Your task to perform on an android device: toggle javascript in the chrome app Image 0: 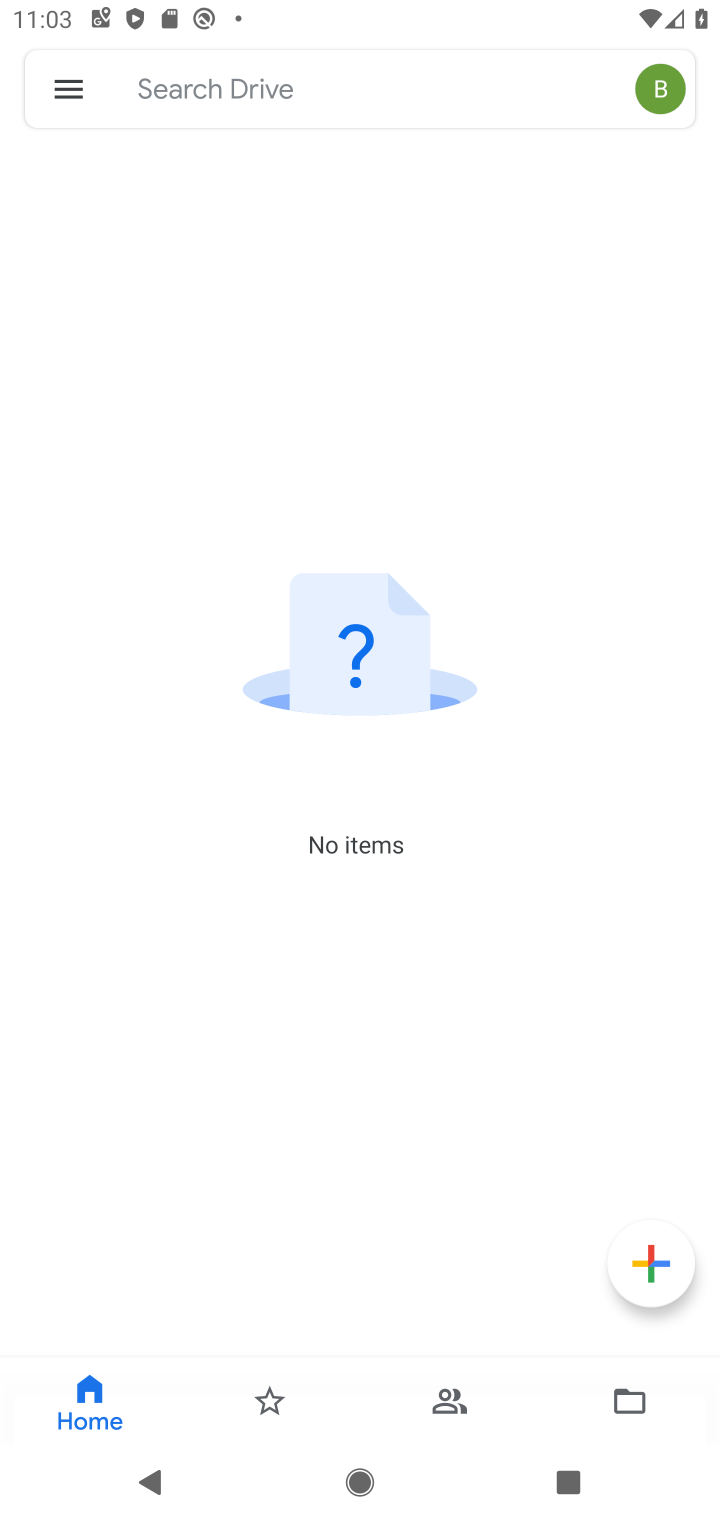
Step 0: press back button
Your task to perform on an android device: toggle javascript in the chrome app Image 1: 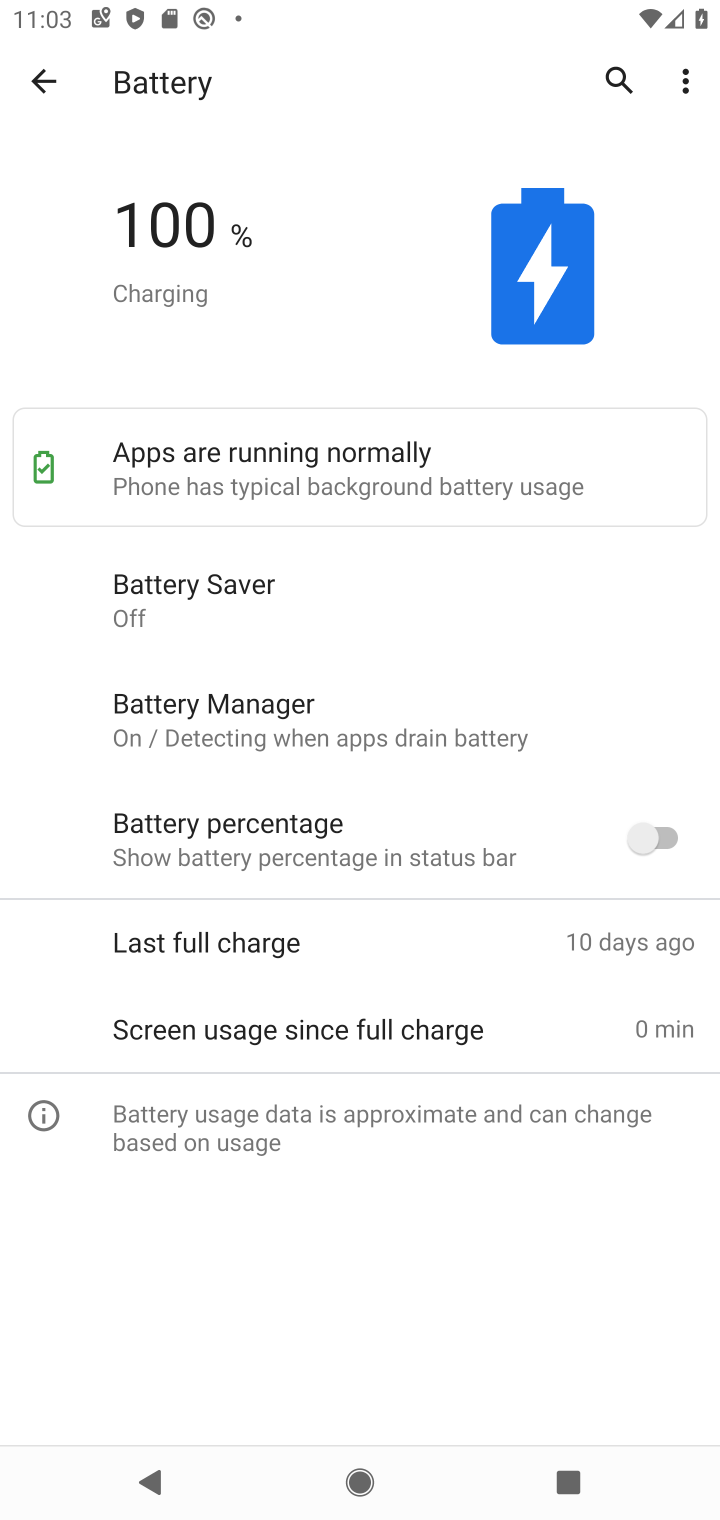
Step 1: press back button
Your task to perform on an android device: toggle javascript in the chrome app Image 2: 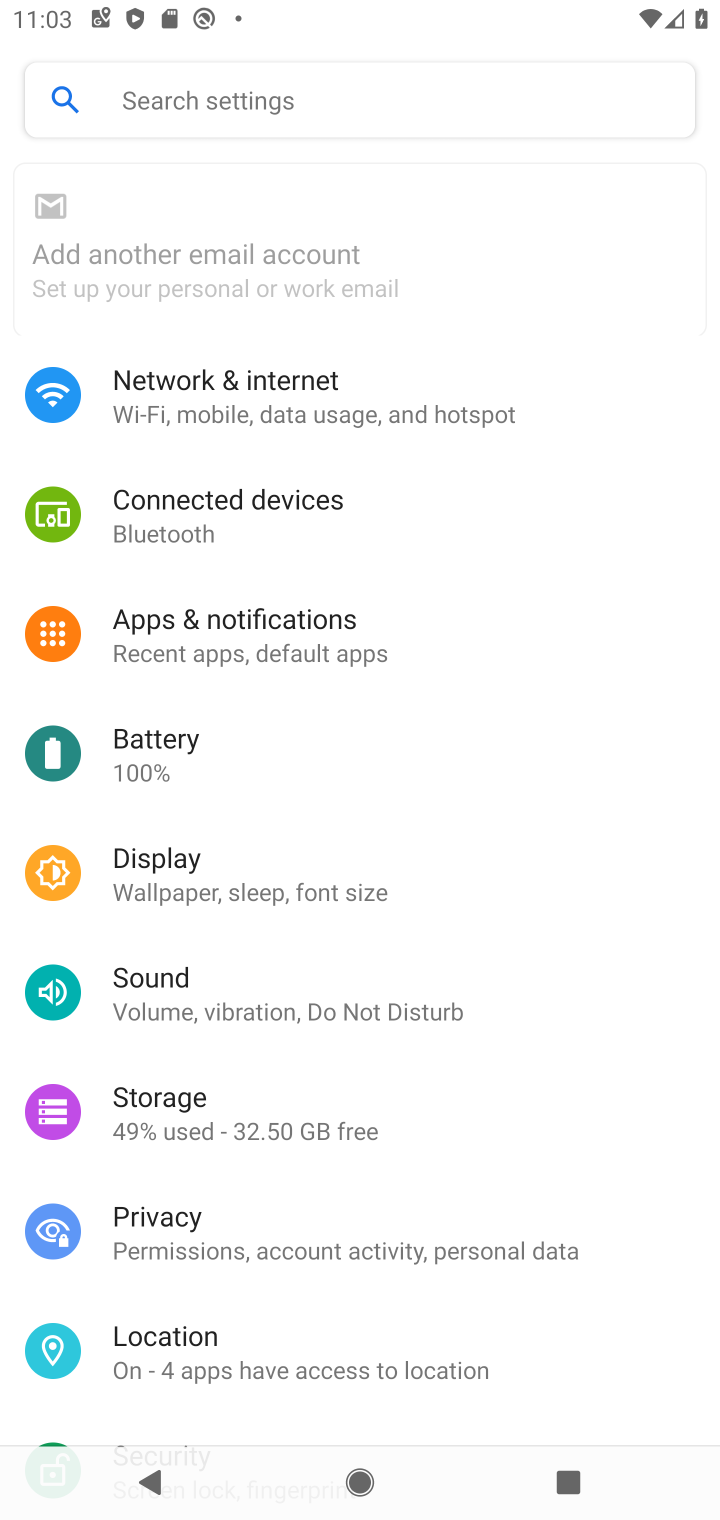
Step 2: press back button
Your task to perform on an android device: toggle javascript in the chrome app Image 3: 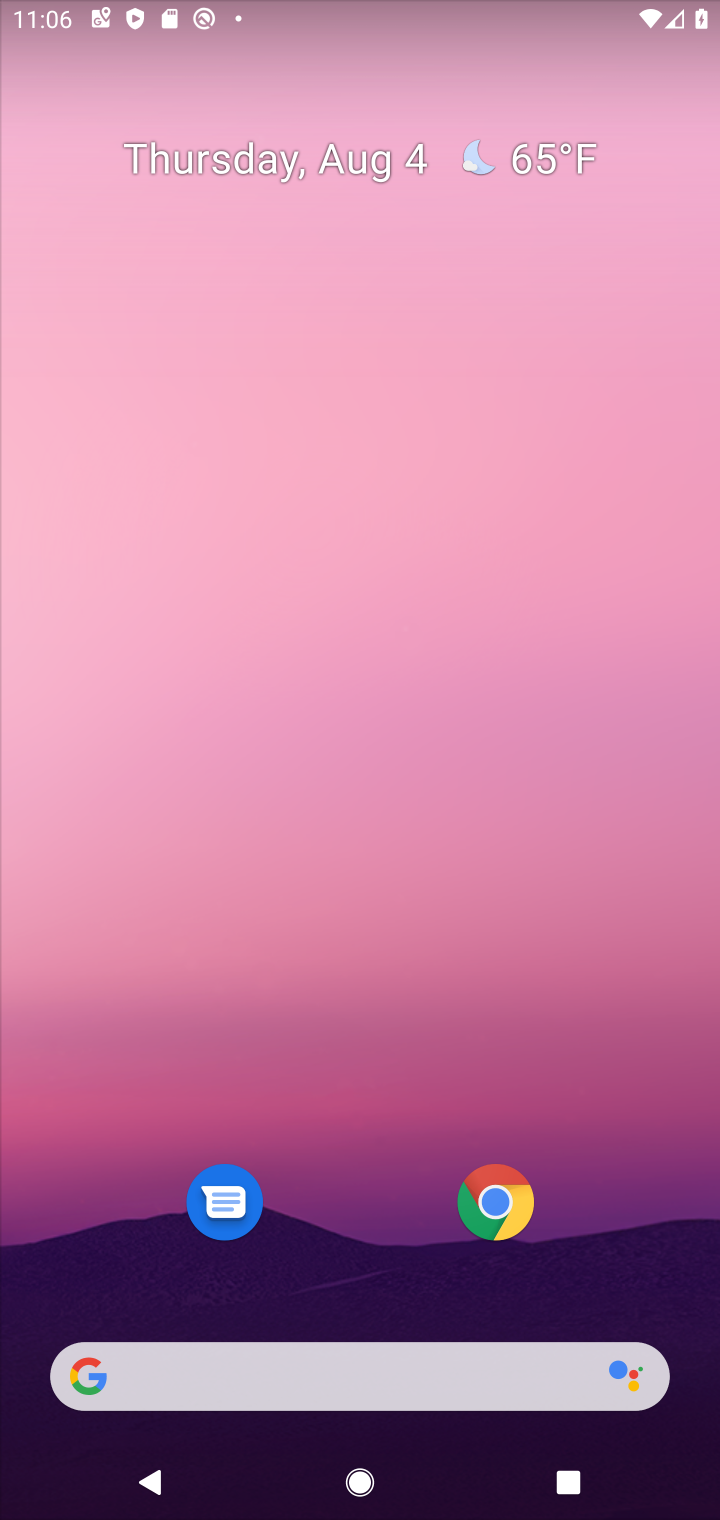
Step 3: click (524, 1208)
Your task to perform on an android device: toggle javascript in the chrome app Image 4: 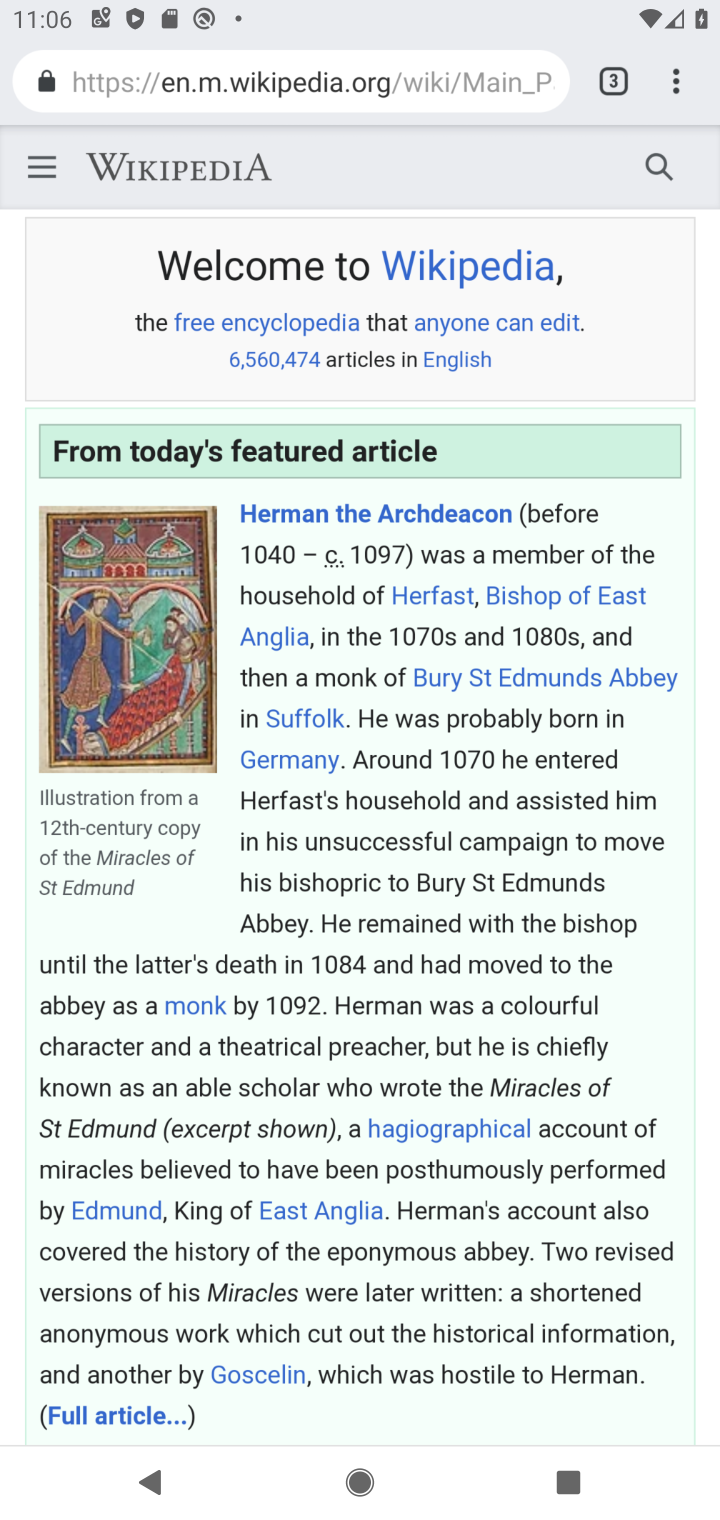
Step 4: drag from (668, 80) to (405, 990)
Your task to perform on an android device: toggle javascript in the chrome app Image 5: 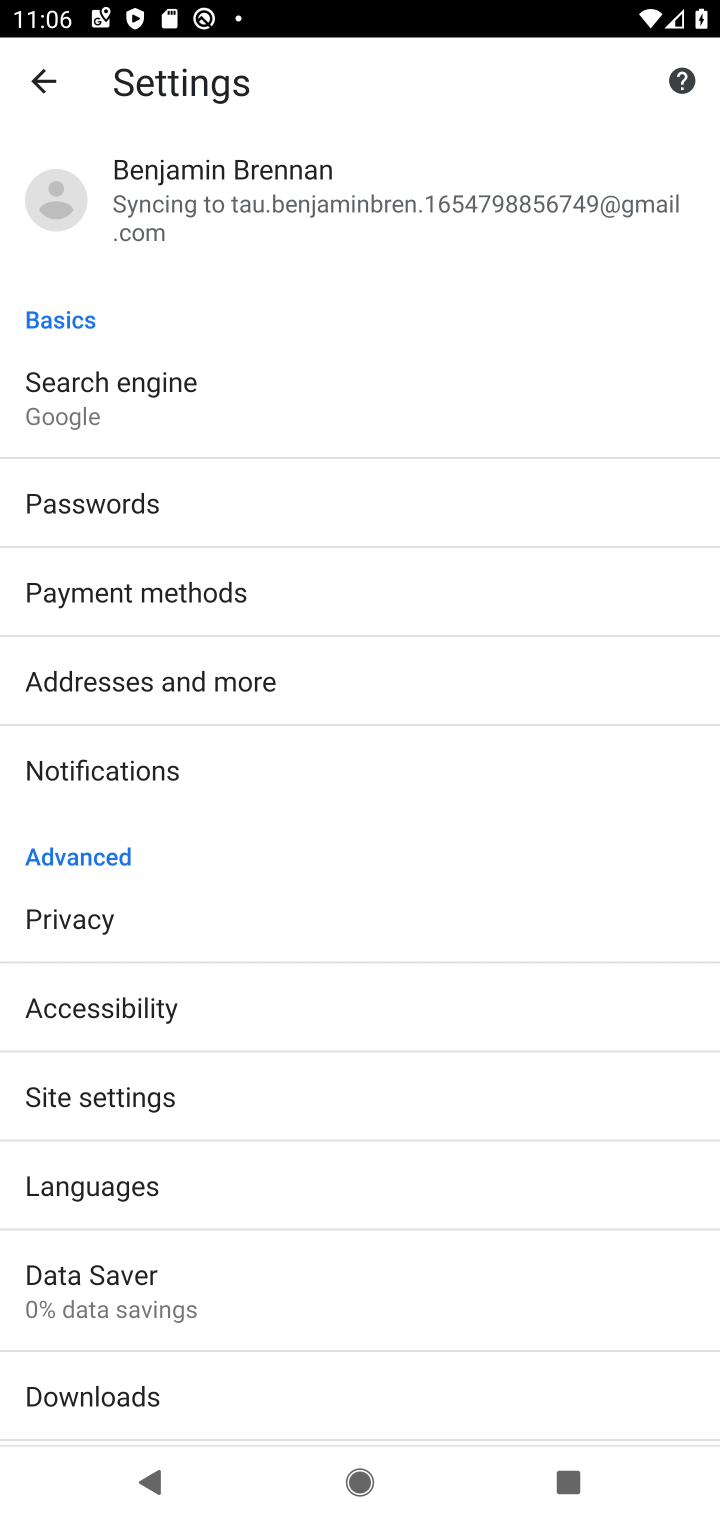
Step 5: click (106, 1100)
Your task to perform on an android device: toggle javascript in the chrome app Image 6: 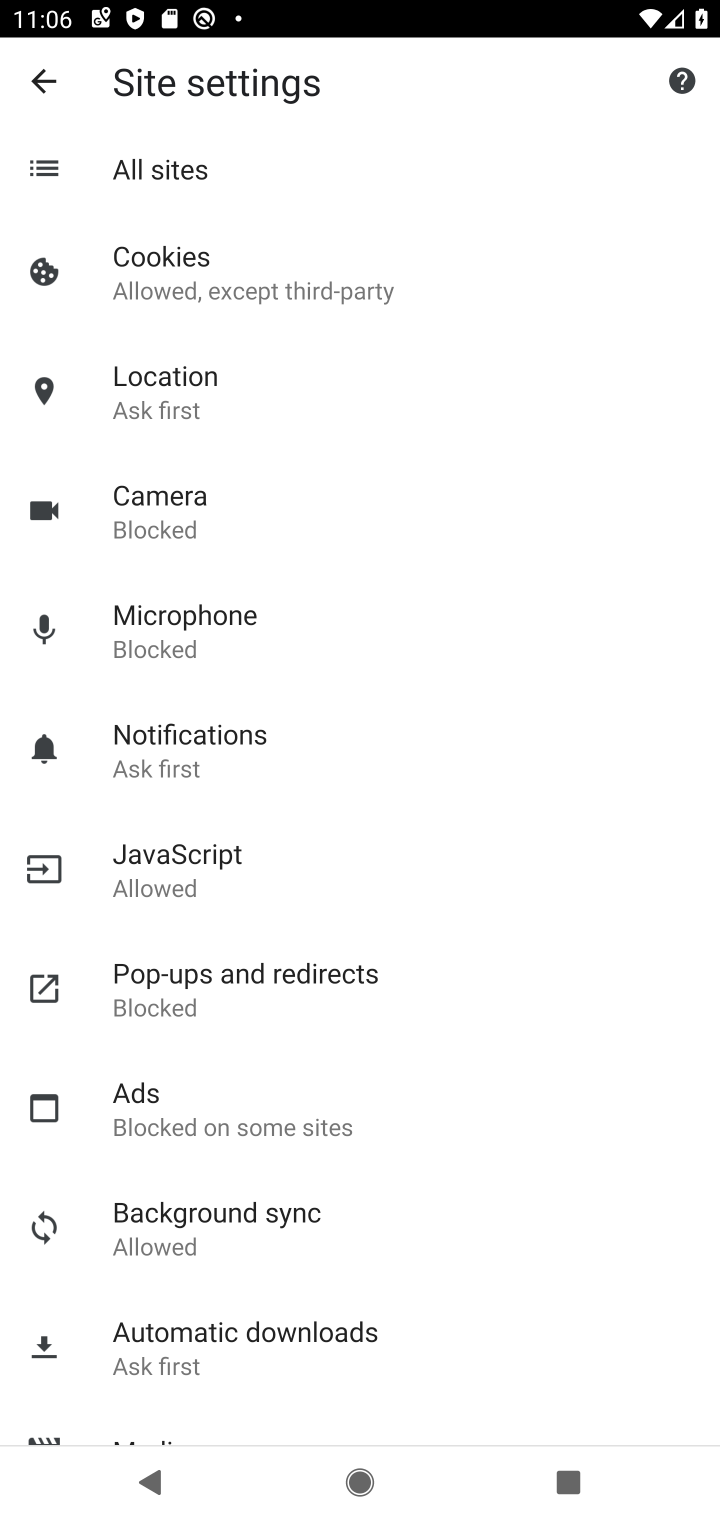
Step 6: click (184, 861)
Your task to perform on an android device: toggle javascript in the chrome app Image 7: 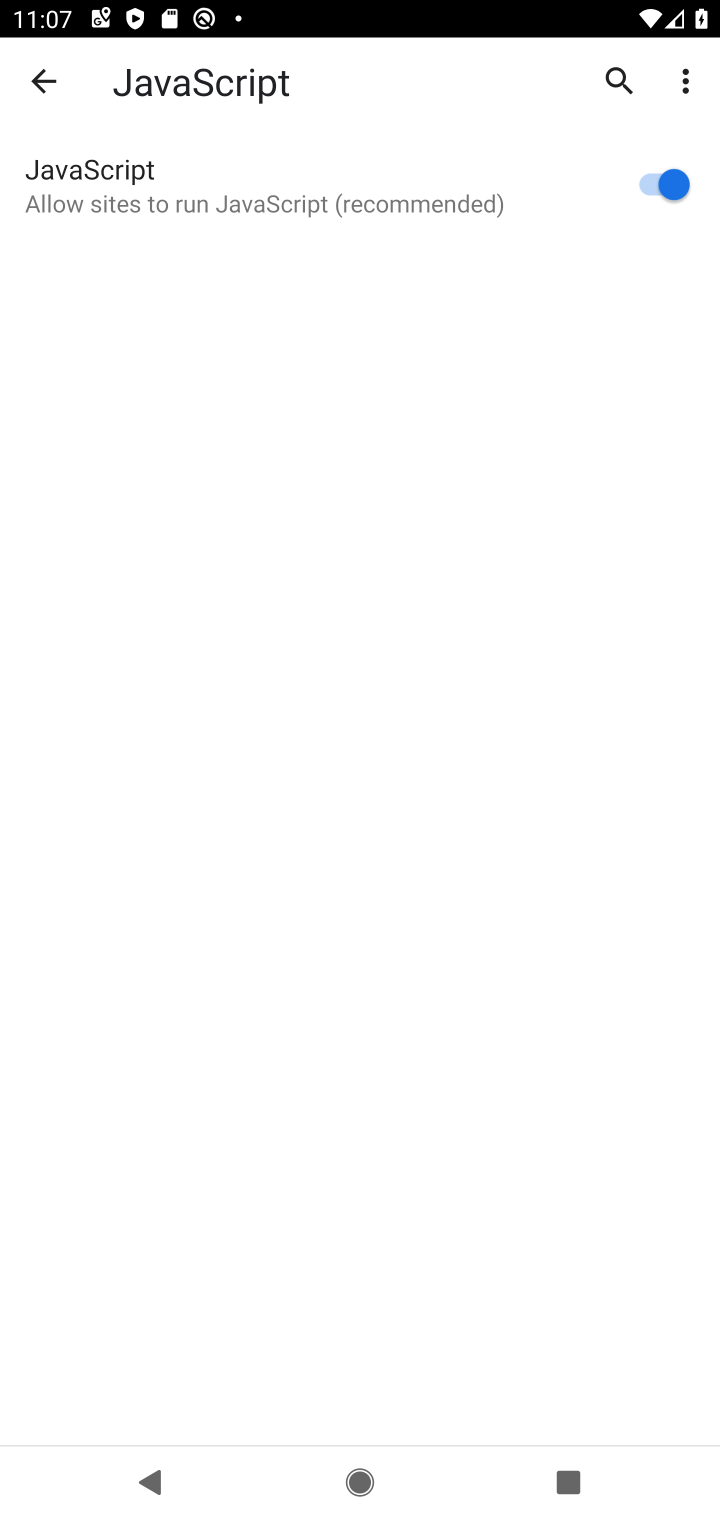
Step 7: click (650, 197)
Your task to perform on an android device: toggle javascript in the chrome app Image 8: 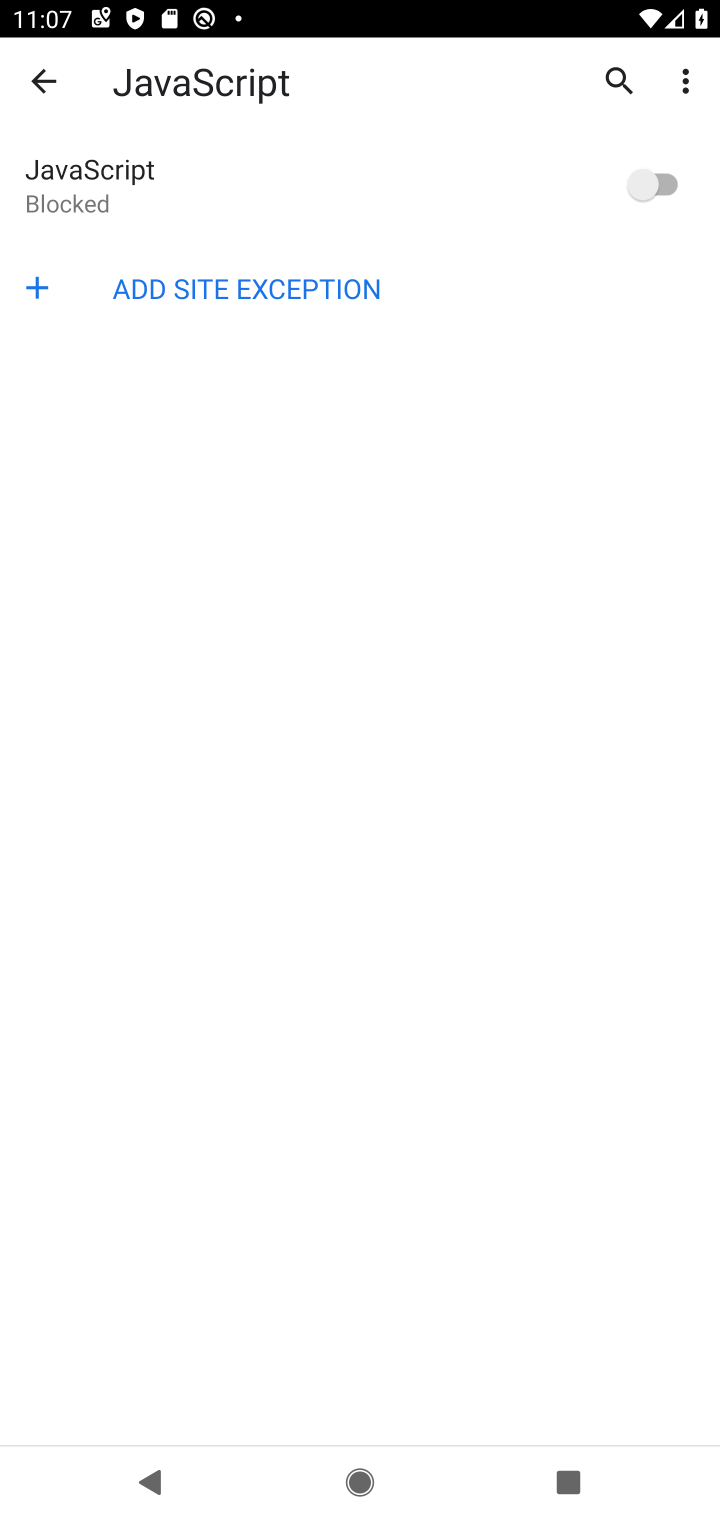
Step 8: task complete